Your task to perform on an android device: Open Google Maps Image 0: 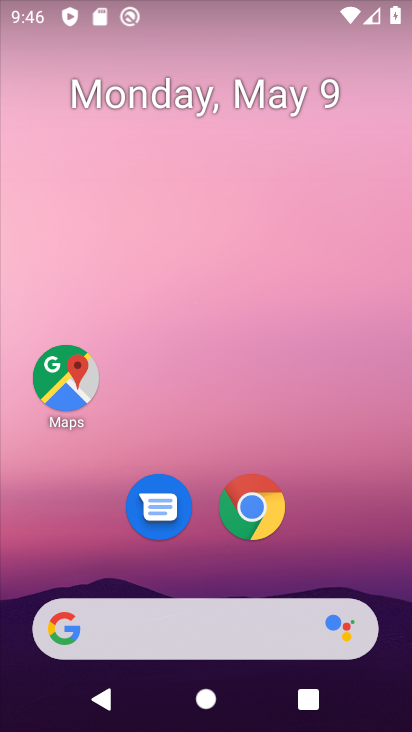
Step 0: click (69, 386)
Your task to perform on an android device: Open Google Maps Image 1: 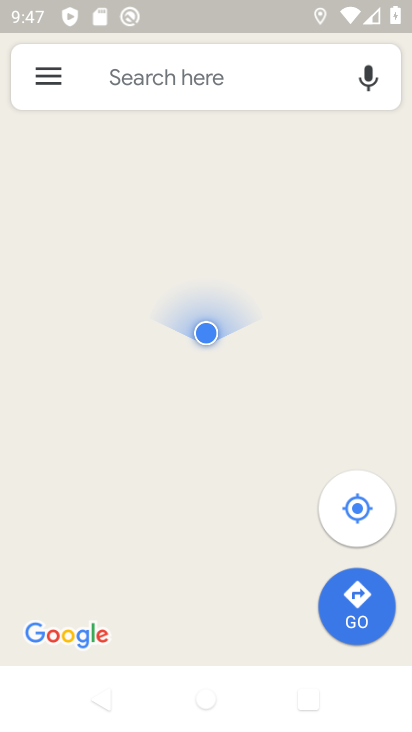
Step 1: task complete